Your task to perform on an android device: make emails show in primary in the gmail app Image 0: 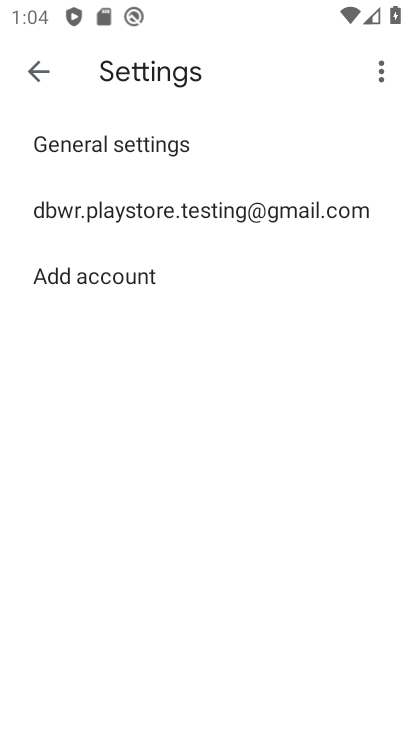
Step 0: click (29, 78)
Your task to perform on an android device: make emails show in primary in the gmail app Image 1: 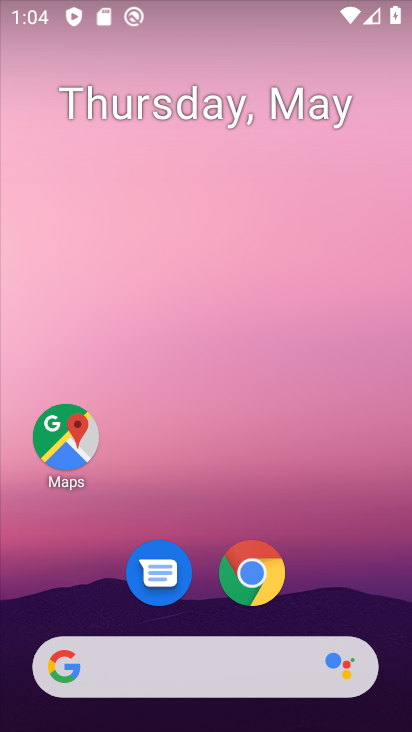
Step 1: drag from (325, 570) to (308, 154)
Your task to perform on an android device: make emails show in primary in the gmail app Image 2: 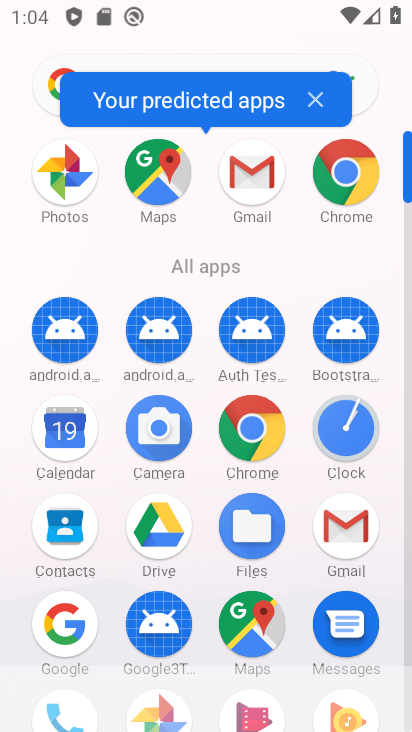
Step 2: click (257, 199)
Your task to perform on an android device: make emails show in primary in the gmail app Image 3: 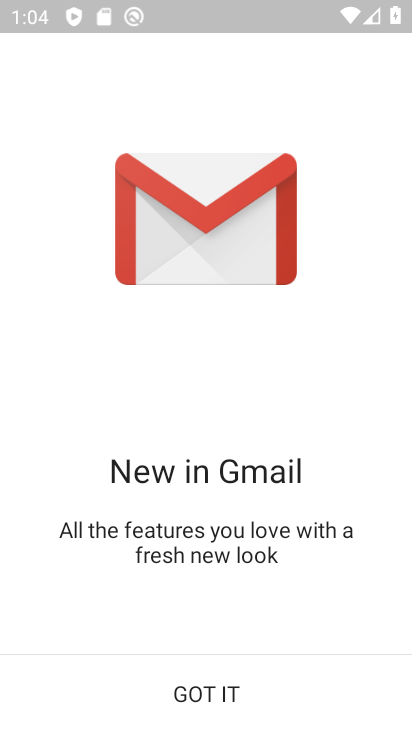
Step 3: click (196, 699)
Your task to perform on an android device: make emails show in primary in the gmail app Image 4: 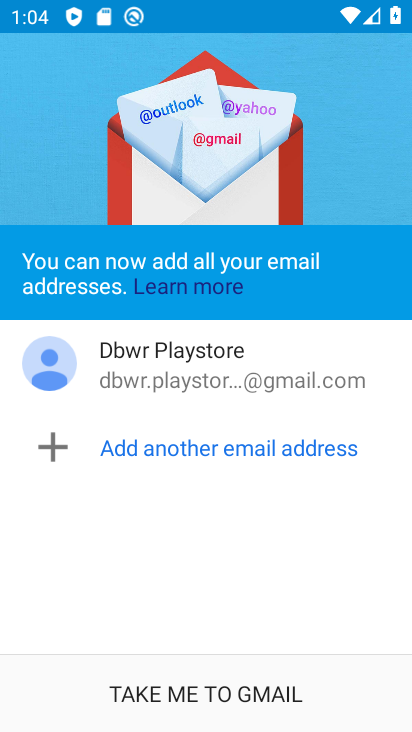
Step 4: click (196, 699)
Your task to perform on an android device: make emails show in primary in the gmail app Image 5: 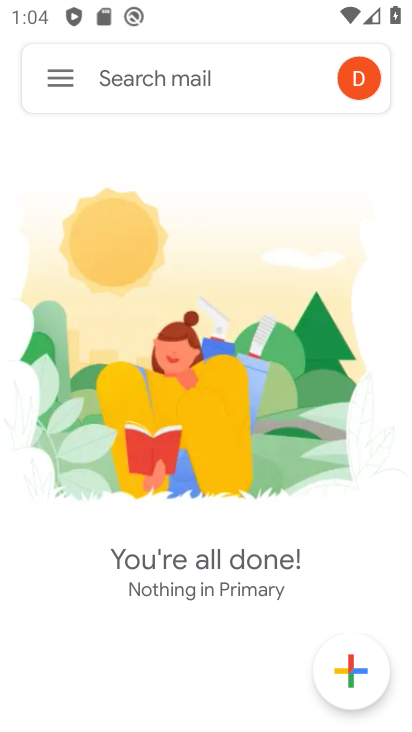
Step 5: click (58, 101)
Your task to perform on an android device: make emails show in primary in the gmail app Image 6: 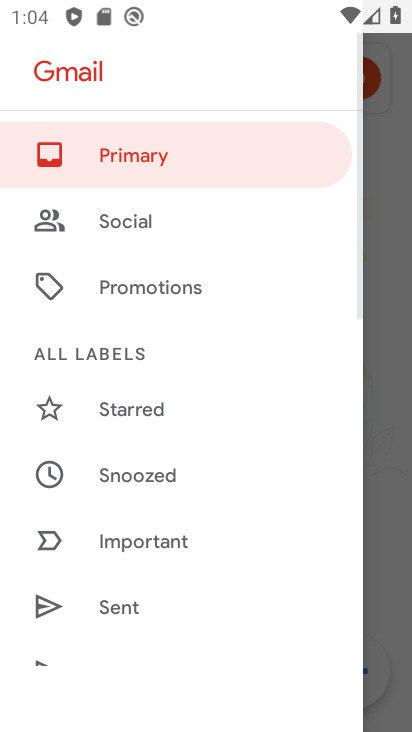
Step 6: drag from (92, 659) to (41, 104)
Your task to perform on an android device: make emails show in primary in the gmail app Image 7: 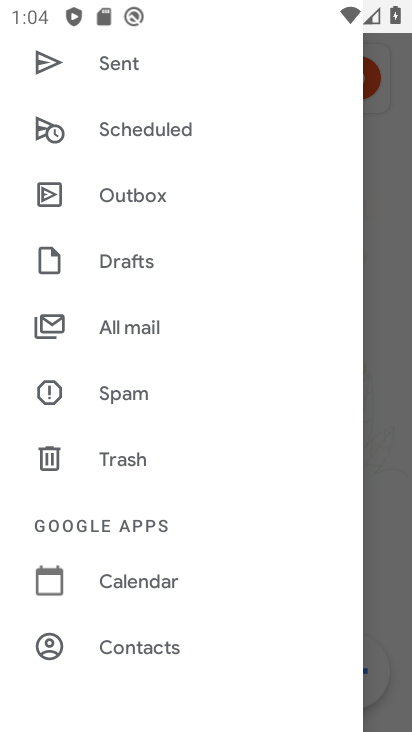
Step 7: drag from (133, 601) to (158, 174)
Your task to perform on an android device: make emails show in primary in the gmail app Image 8: 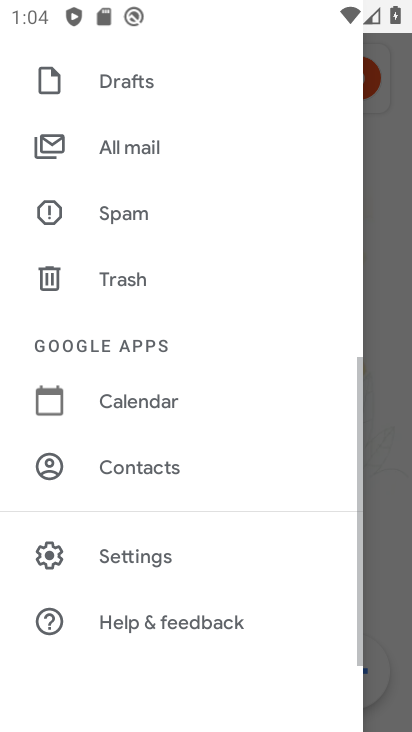
Step 8: click (191, 571)
Your task to perform on an android device: make emails show in primary in the gmail app Image 9: 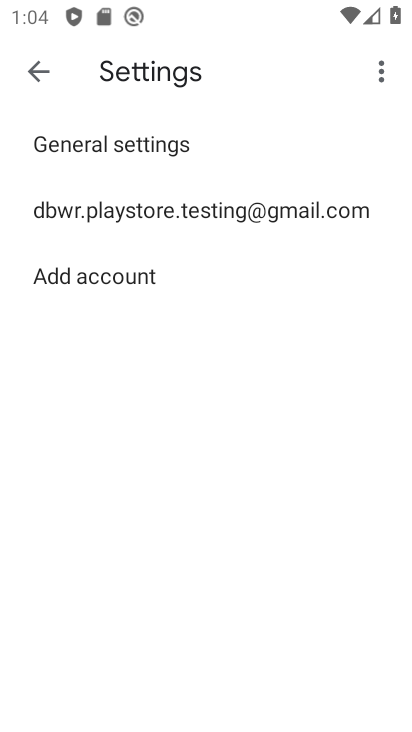
Step 9: click (141, 197)
Your task to perform on an android device: make emails show in primary in the gmail app Image 10: 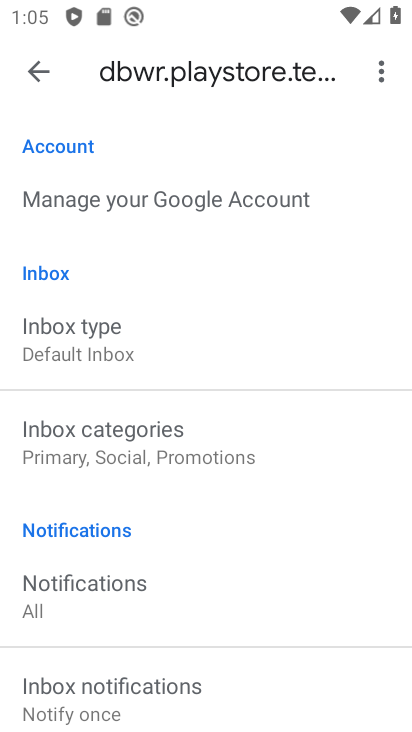
Step 10: task complete